Your task to perform on an android device: move a message to another label in the gmail app Image 0: 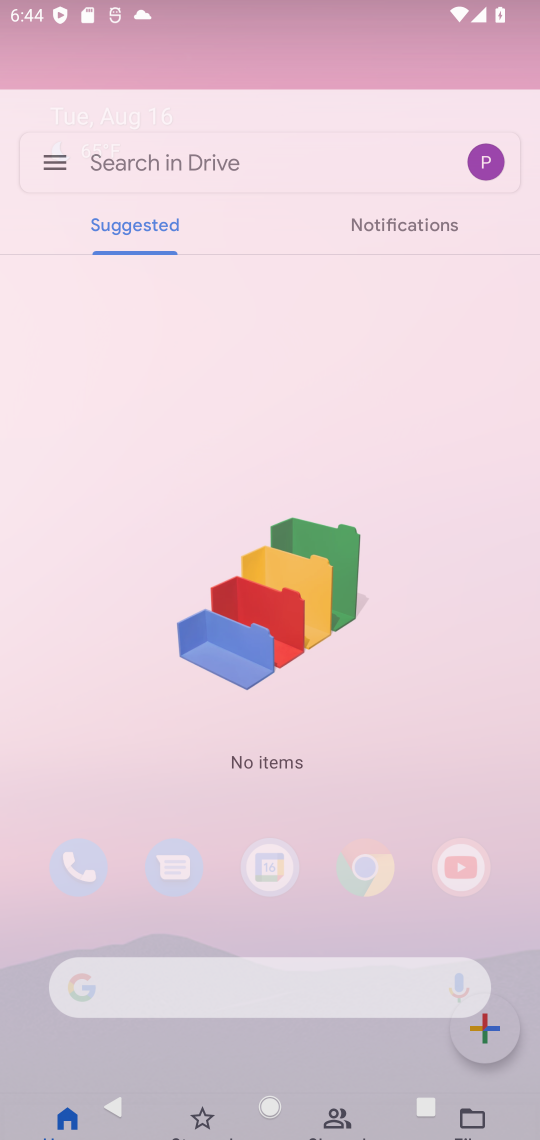
Step 0: press home button
Your task to perform on an android device: move a message to another label in the gmail app Image 1: 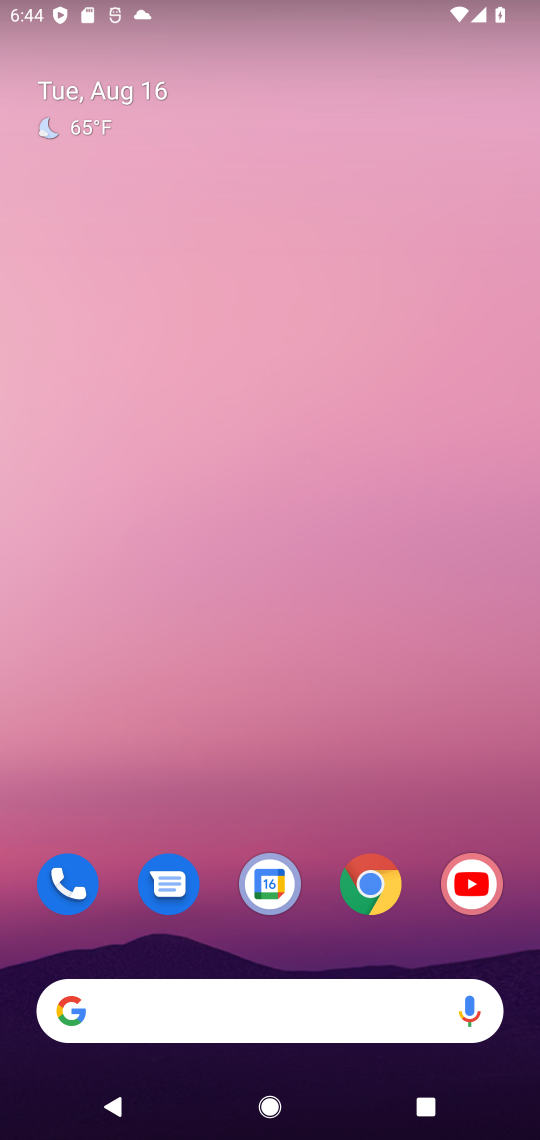
Step 1: drag from (314, 935) to (347, 357)
Your task to perform on an android device: move a message to another label in the gmail app Image 2: 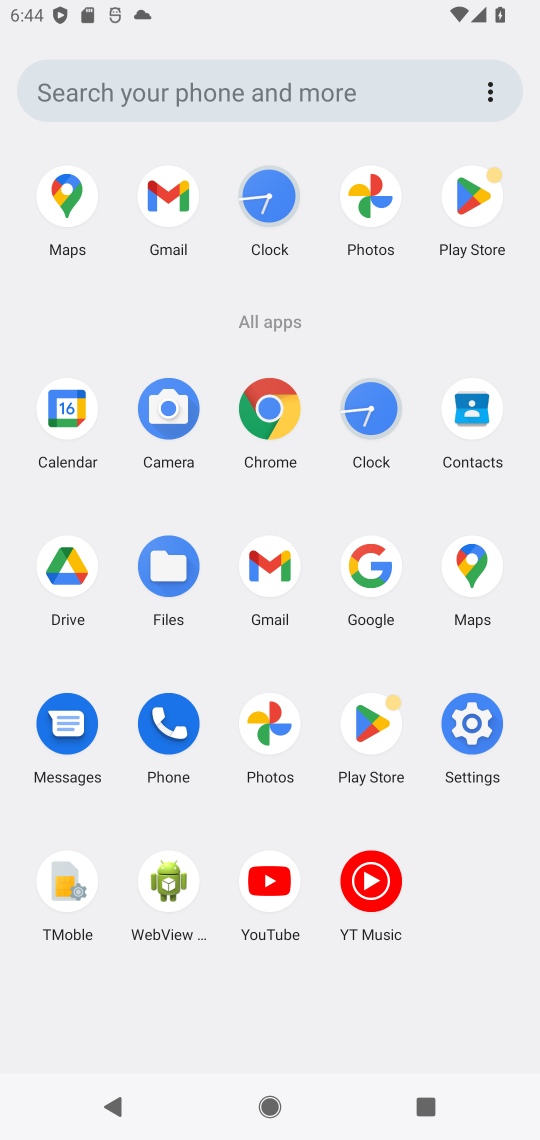
Step 2: click (190, 208)
Your task to perform on an android device: move a message to another label in the gmail app Image 3: 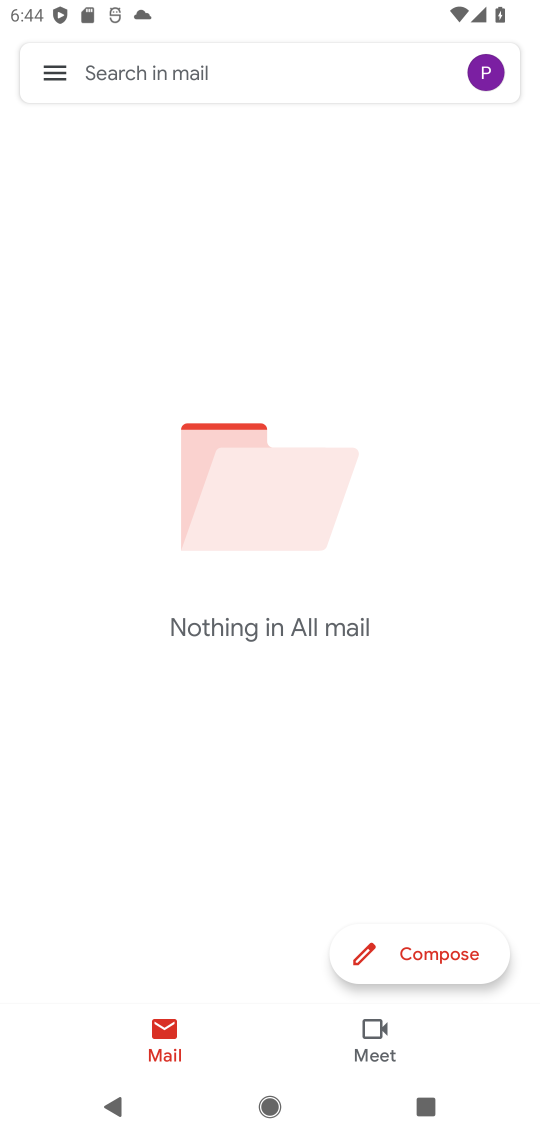
Step 3: click (53, 70)
Your task to perform on an android device: move a message to another label in the gmail app Image 4: 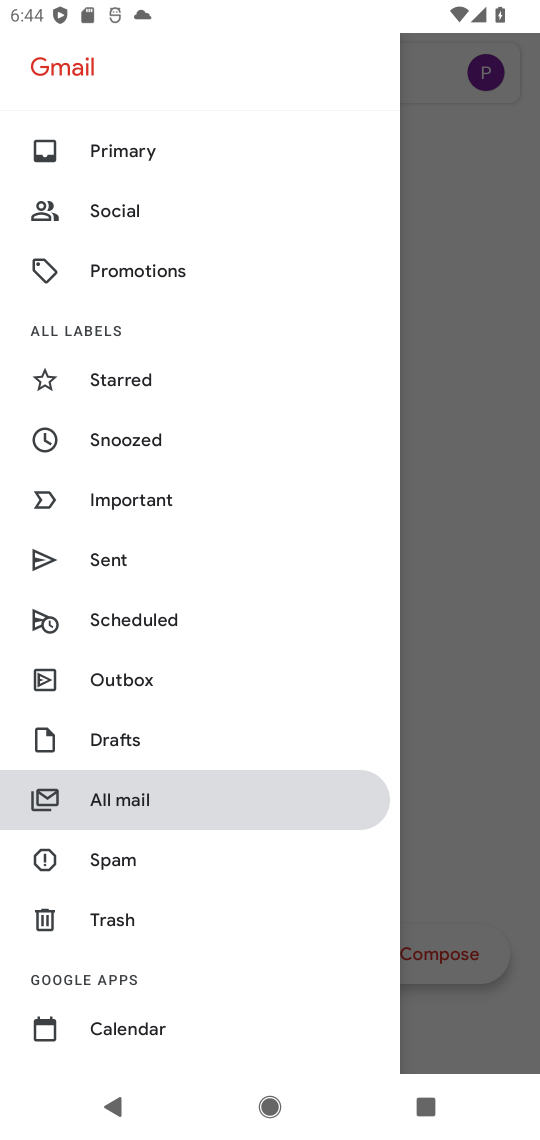
Step 4: click (144, 785)
Your task to perform on an android device: move a message to another label in the gmail app Image 5: 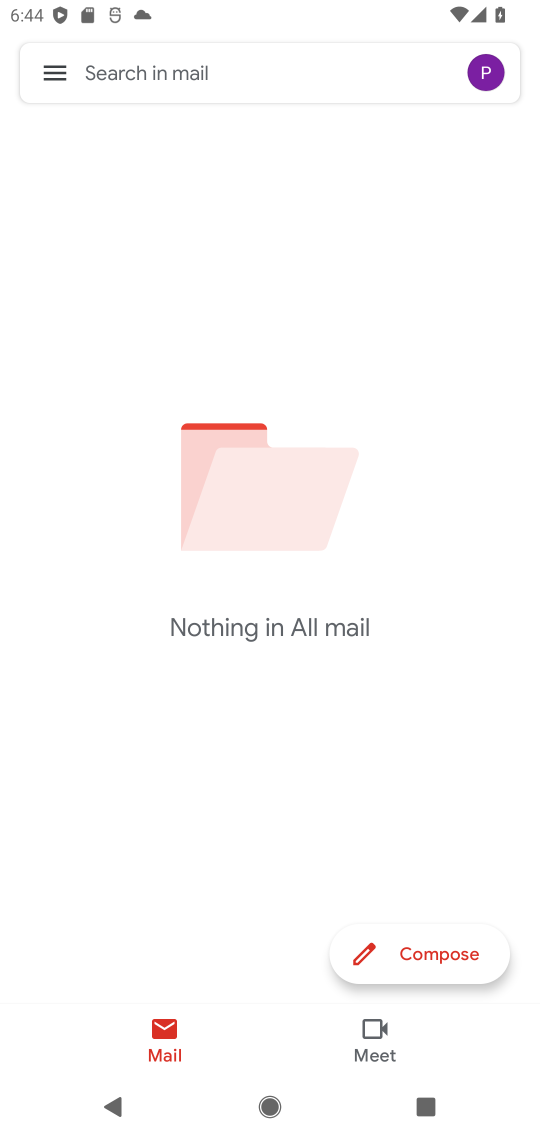
Step 5: task complete